Your task to perform on an android device: turn off airplane mode Image 0: 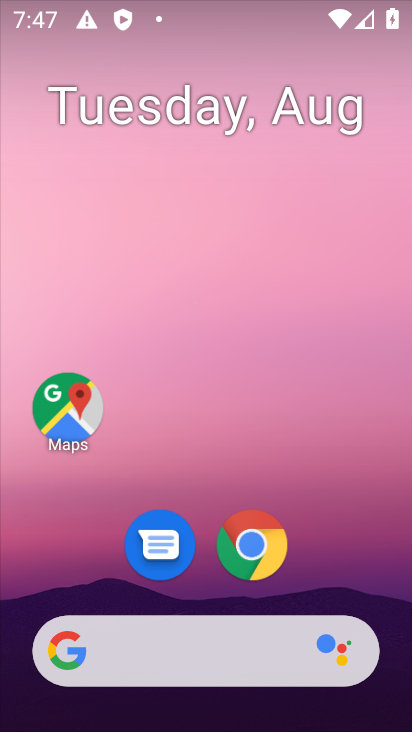
Step 0: drag from (372, 4) to (382, 455)
Your task to perform on an android device: turn off airplane mode Image 1: 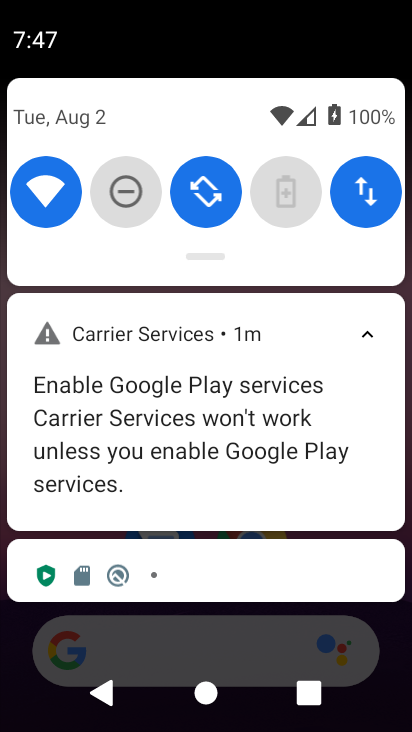
Step 1: drag from (198, 251) to (196, 469)
Your task to perform on an android device: turn off airplane mode Image 2: 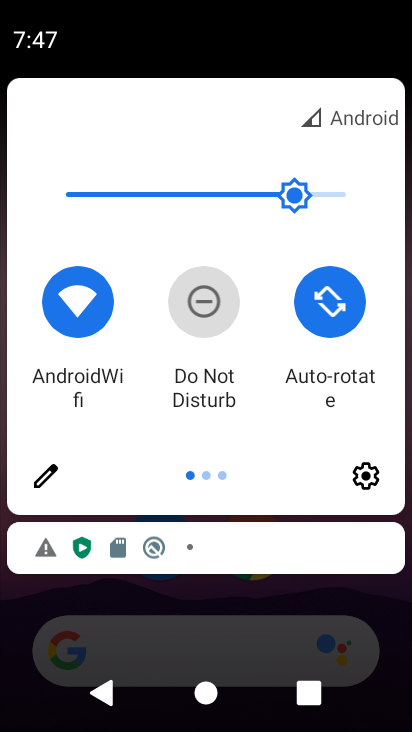
Step 2: drag from (356, 422) to (0, 365)
Your task to perform on an android device: turn off airplane mode Image 3: 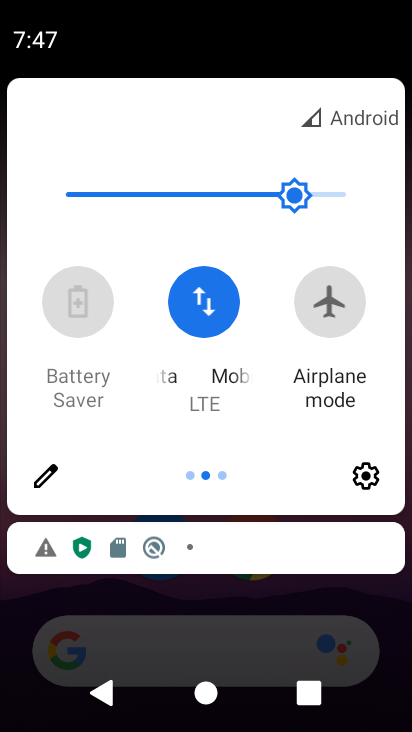
Step 3: click (314, 311)
Your task to perform on an android device: turn off airplane mode Image 4: 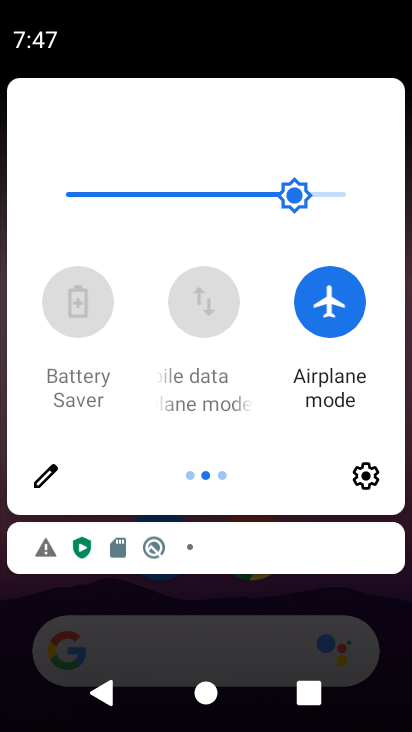
Step 4: click (314, 311)
Your task to perform on an android device: turn off airplane mode Image 5: 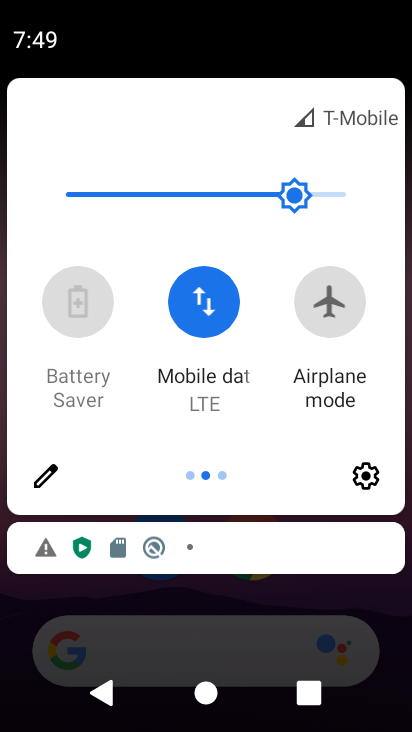
Step 5: task complete